Your task to perform on an android device: Open Yahoo.com Image 0: 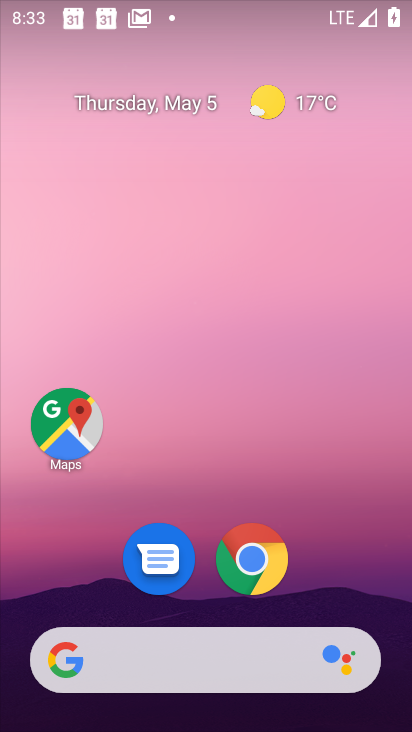
Step 0: click (258, 558)
Your task to perform on an android device: Open Yahoo.com Image 1: 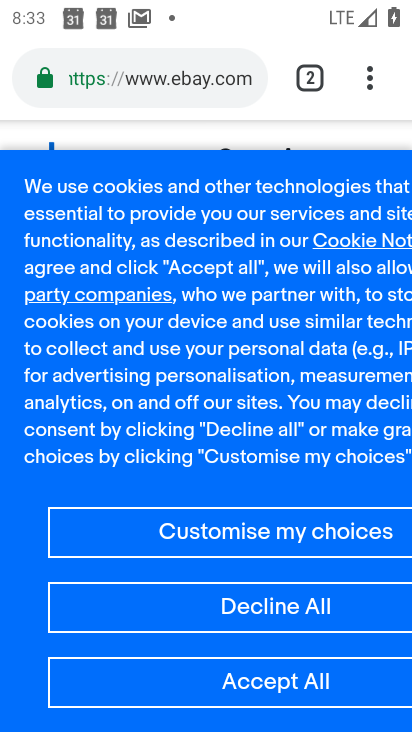
Step 1: click (145, 76)
Your task to perform on an android device: Open Yahoo.com Image 2: 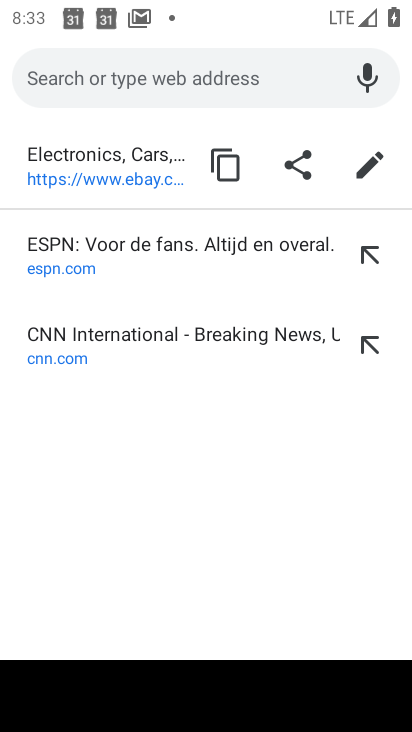
Step 2: type "yahoo.com"
Your task to perform on an android device: Open Yahoo.com Image 3: 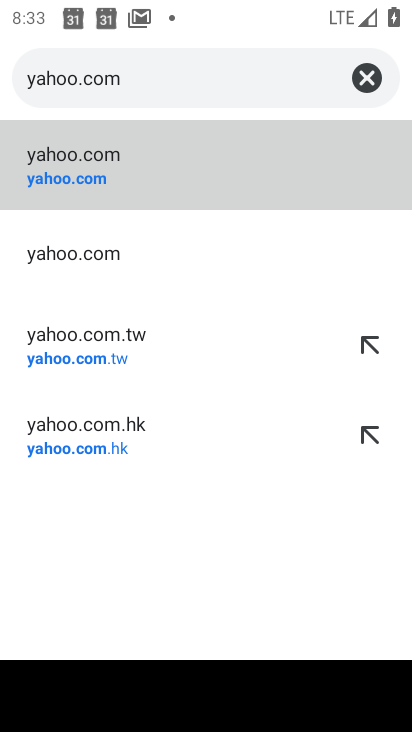
Step 3: click (64, 195)
Your task to perform on an android device: Open Yahoo.com Image 4: 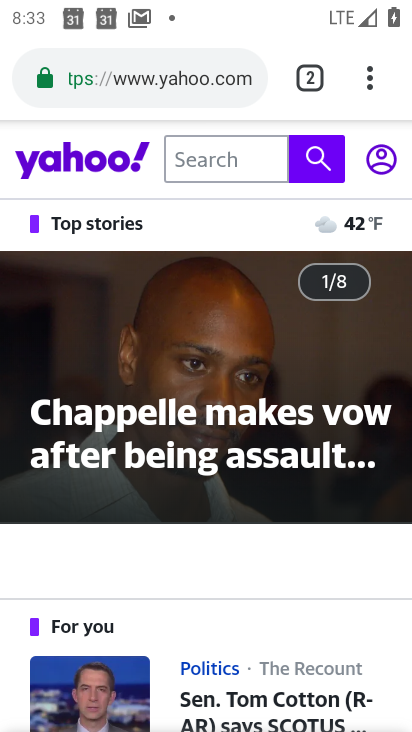
Step 4: task complete